Your task to perform on an android device: find which apps use the phone's location Image 0: 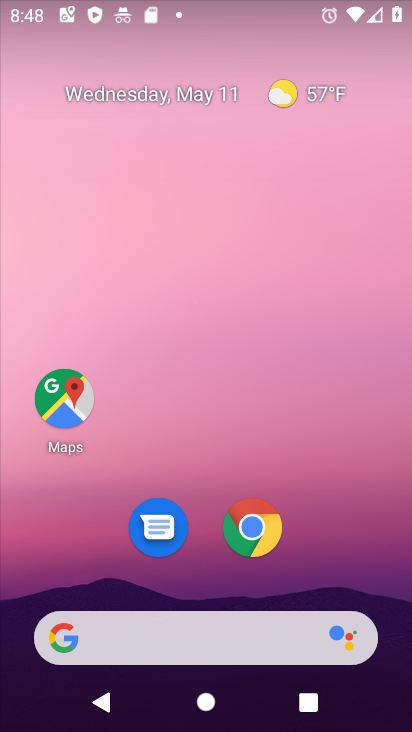
Step 0: drag from (356, 604) to (353, 0)
Your task to perform on an android device: find which apps use the phone's location Image 1: 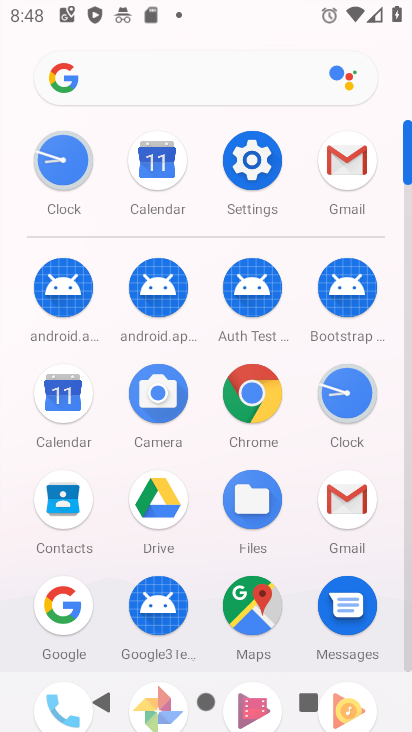
Step 1: click (245, 167)
Your task to perform on an android device: find which apps use the phone's location Image 2: 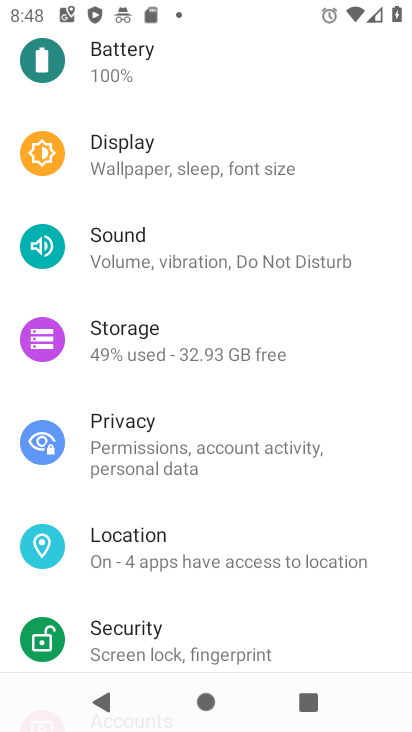
Step 2: click (165, 560)
Your task to perform on an android device: find which apps use the phone's location Image 3: 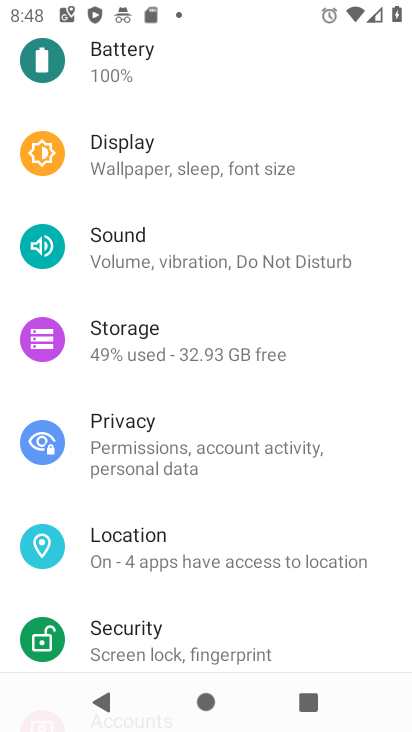
Step 3: click (168, 564)
Your task to perform on an android device: find which apps use the phone's location Image 4: 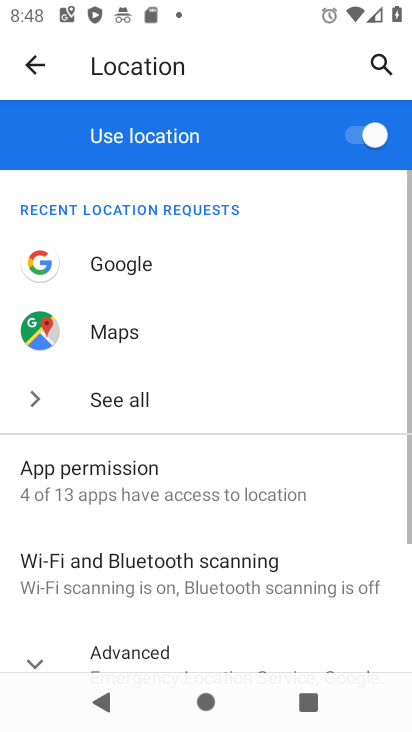
Step 4: click (59, 498)
Your task to perform on an android device: find which apps use the phone's location Image 5: 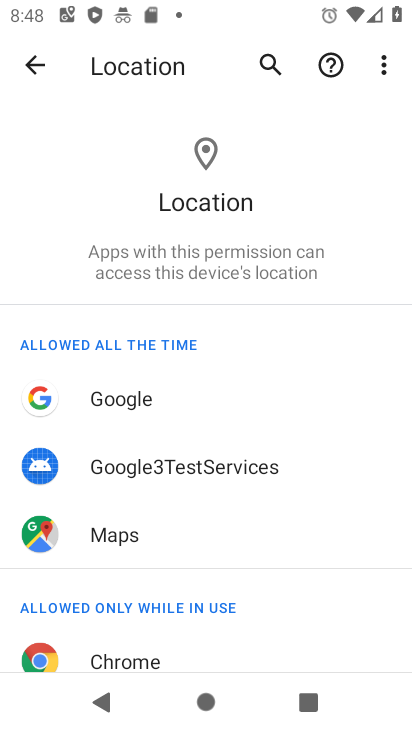
Step 5: task complete